Your task to perform on an android device: Open the calendar app, open the side menu, and click the "Day" option Image 0: 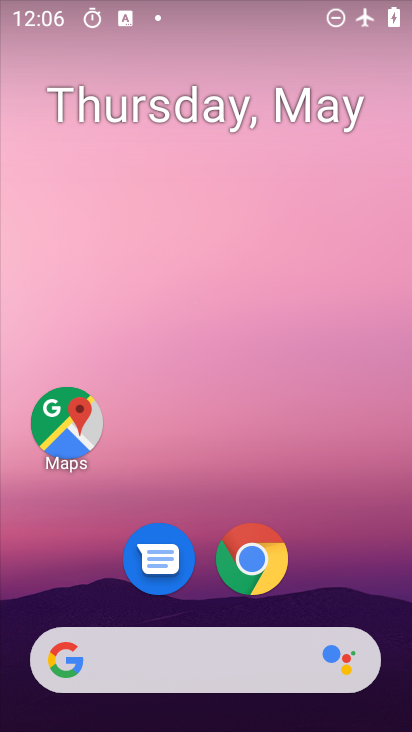
Step 0: drag from (252, 677) to (255, 48)
Your task to perform on an android device: Open the calendar app, open the side menu, and click the "Day" option Image 1: 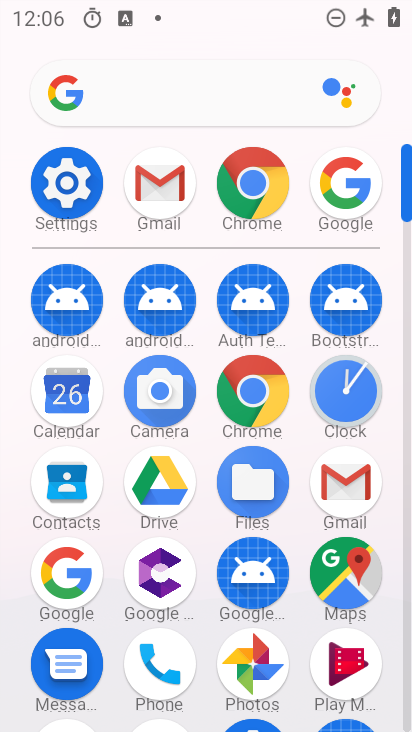
Step 1: click (68, 399)
Your task to perform on an android device: Open the calendar app, open the side menu, and click the "Day" option Image 2: 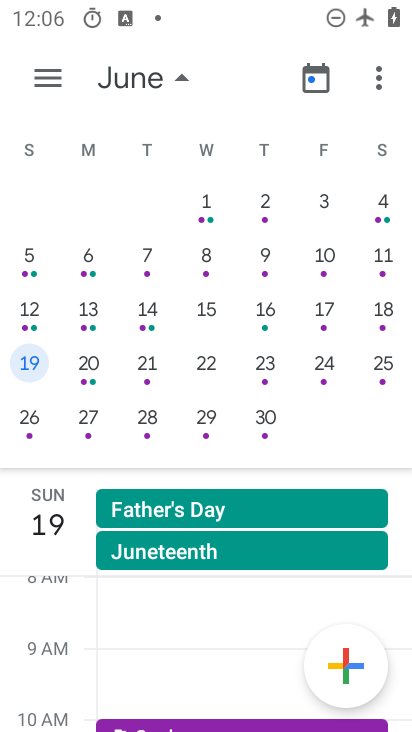
Step 2: click (52, 74)
Your task to perform on an android device: Open the calendar app, open the side menu, and click the "Day" option Image 3: 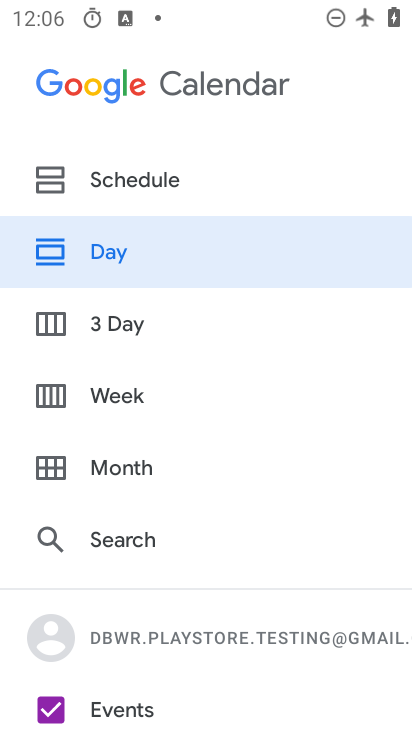
Step 3: task complete